Your task to perform on an android device: find which apps use the phone's location Image 0: 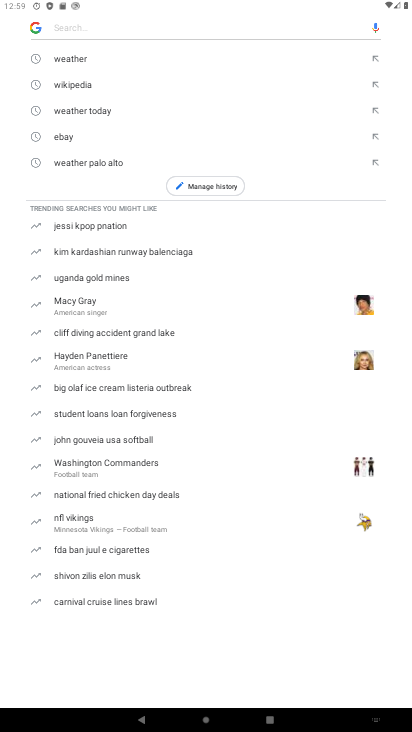
Step 0: press back button
Your task to perform on an android device: find which apps use the phone's location Image 1: 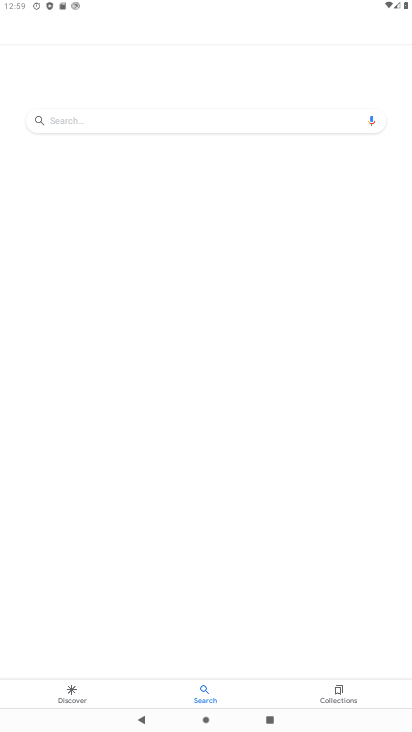
Step 1: press back button
Your task to perform on an android device: find which apps use the phone's location Image 2: 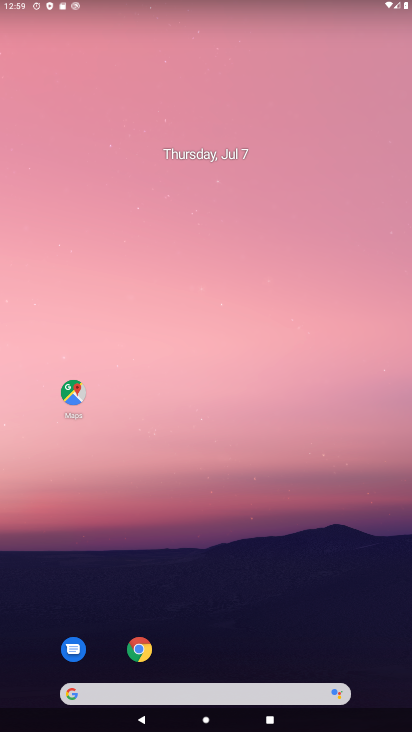
Step 2: drag from (209, 672) to (169, 222)
Your task to perform on an android device: find which apps use the phone's location Image 3: 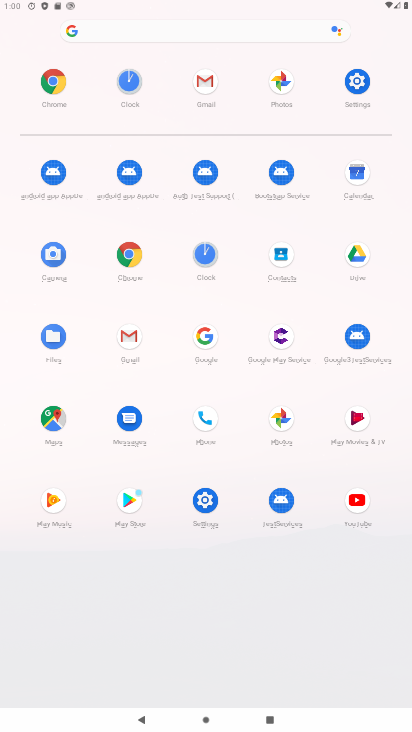
Step 3: click (346, 89)
Your task to perform on an android device: find which apps use the phone's location Image 4: 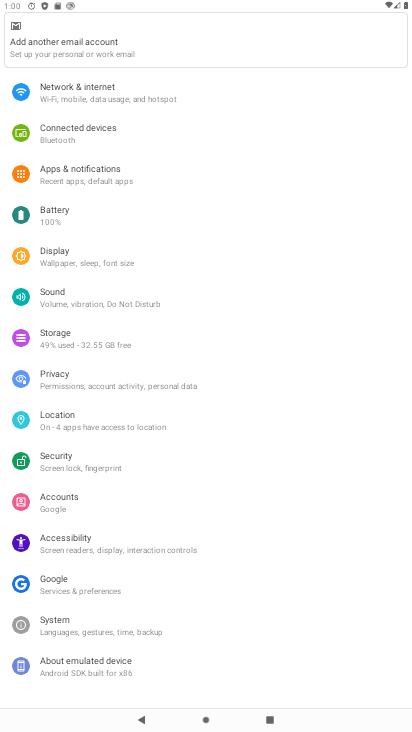
Step 4: click (51, 411)
Your task to perform on an android device: find which apps use the phone's location Image 5: 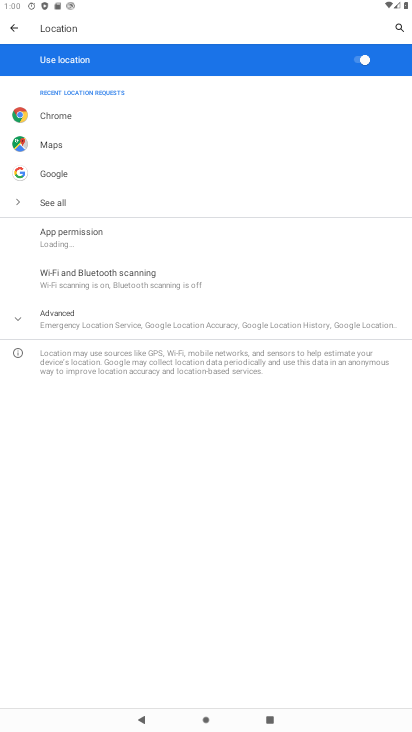
Step 5: click (48, 298)
Your task to perform on an android device: find which apps use the phone's location Image 6: 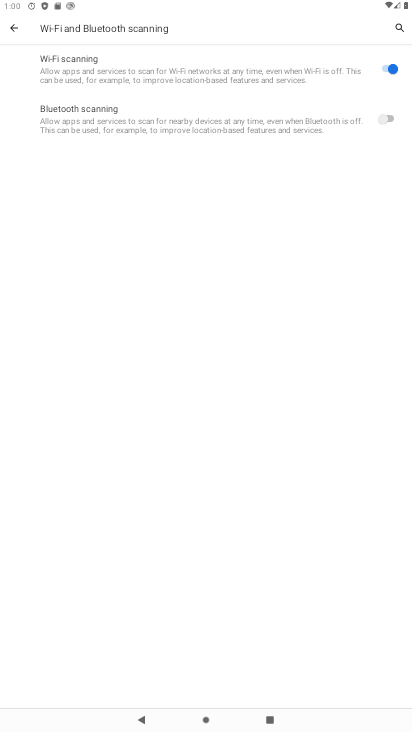
Step 6: click (17, 29)
Your task to perform on an android device: find which apps use the phone's location Image 7: 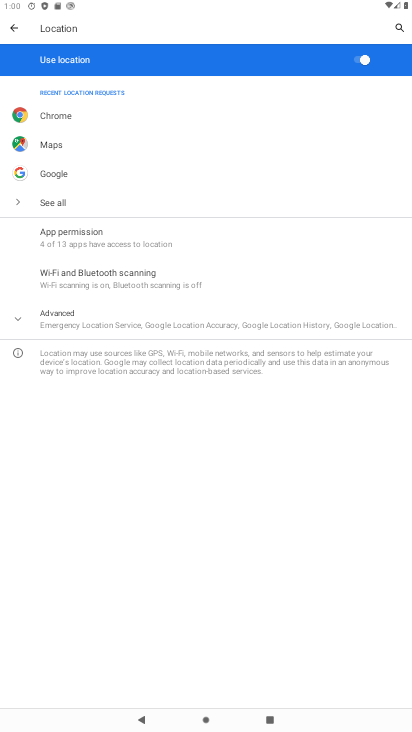
Step 7: click (120, 232)
Your task to perform on an android device: find which apps use the phone's location Image 8: 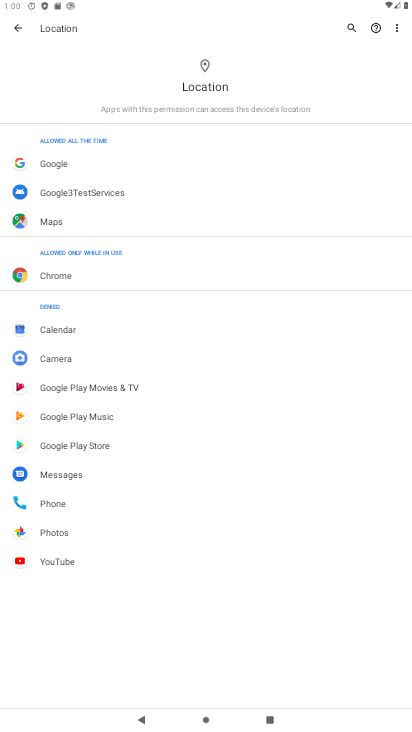
Step 8: task complete